Your task to perform on an android device: Go to Google Image 0: 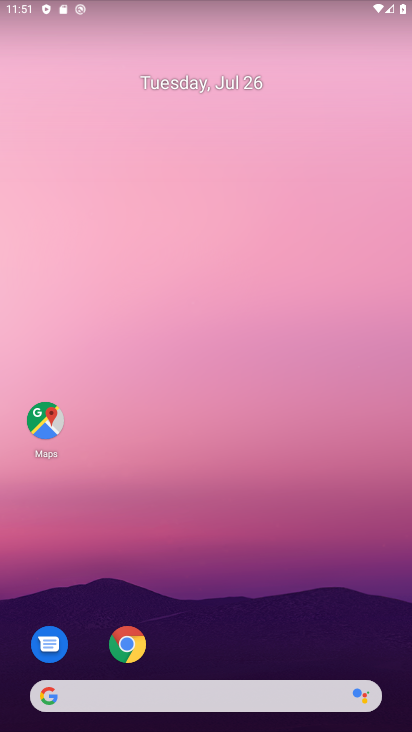
Step 0: drag from (223, 581) to (248, 10)
Your task to perform on an android device: Go to Google Image 1: 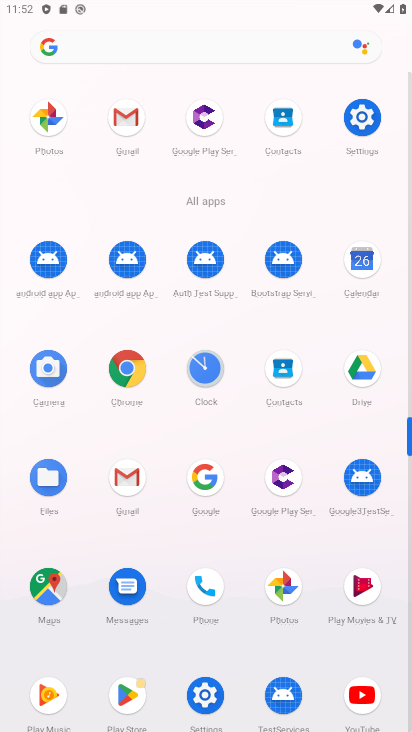
Step 1: click (200, 485)
Your task to perform on an android device: Go to Google Image 2: 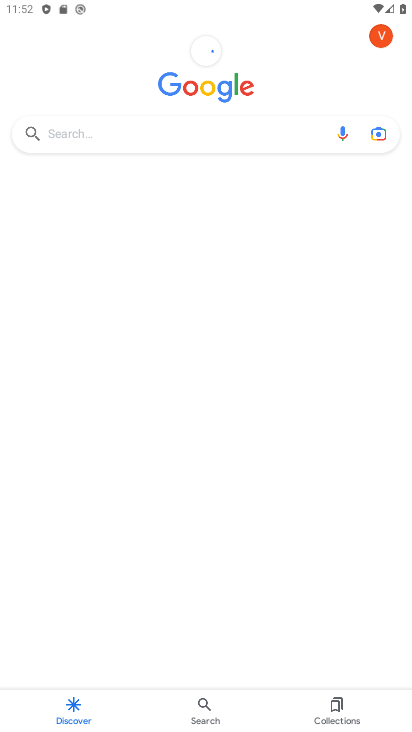
Step 2: task complete